Your task to perform on an android device: Toggle the flashlight Image 0: 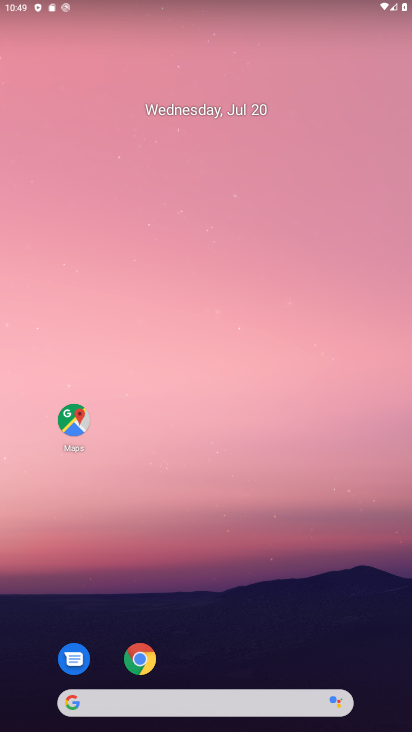
Step 0: drag from (189, 676) to (215, 108)
Your task to perform on an android device: Toggle the flashlight Image 1: 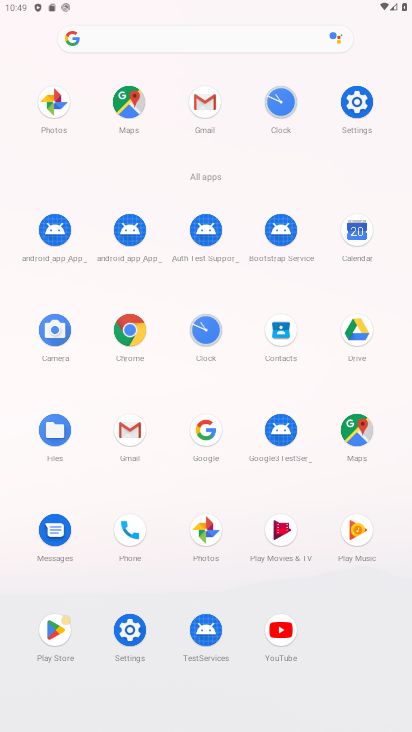
Step 1: click (362, 118)
Your task to perform on an android device: Toggle the flashlight Image 2: 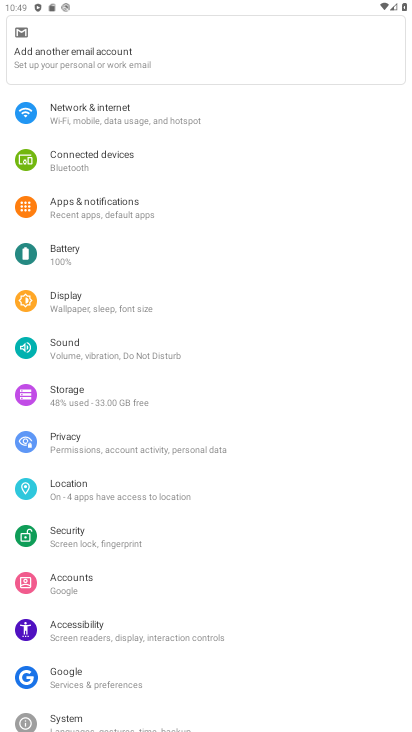
Step 2: drag from (213, 70) to (176, 483)
Your task to perform on an android device: Toggle the flashlight Image 3: 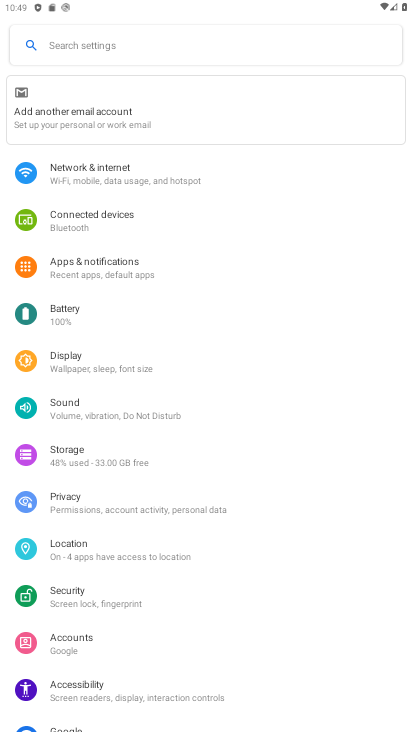
Step 3: click (157, 40)
Your task to perform on an android device: Toggle the flashlight Image 4: 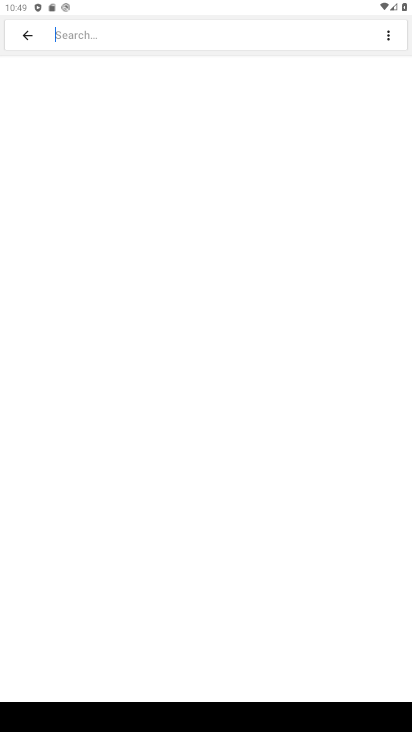
Step 4: type "flashlight"
Your task to perform on an android device: Toggle the flashlight Image 5: 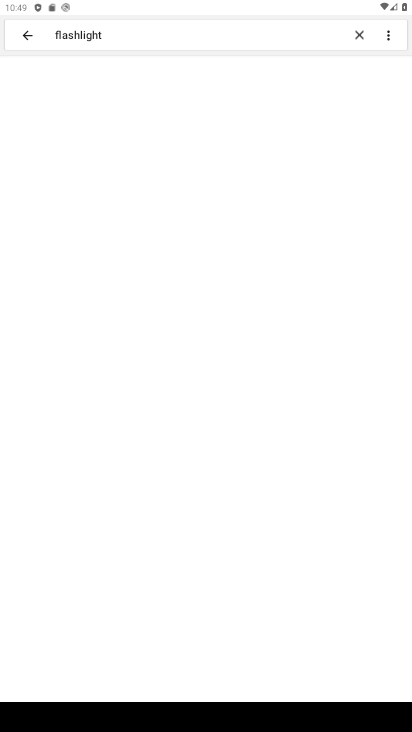
Step 5: click (119, 97)
Your task to perform on an android device: Toggle the flashlight Image 6: 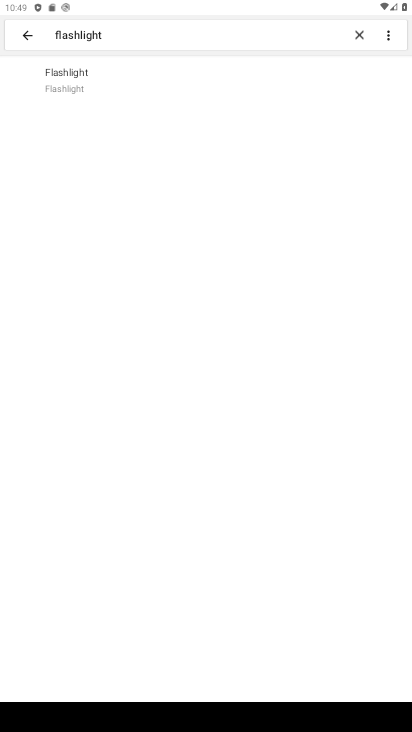
Step 6: click (85, 86)
Your task to perform on an android device: Toggle the flashlight Image 7: 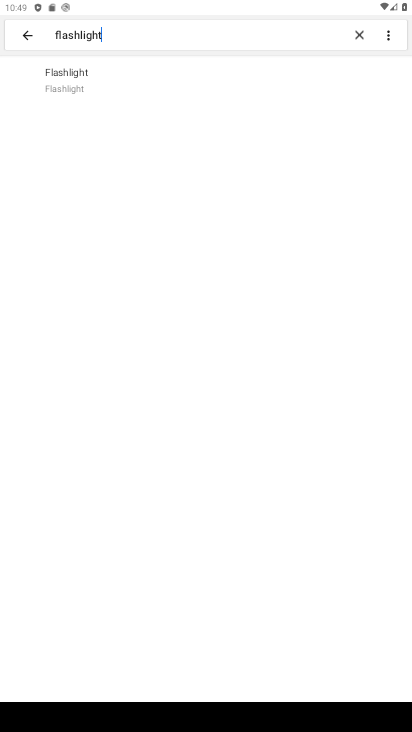
Step 7: task complete